Your task to perform on an android device: turn off location Image 0: 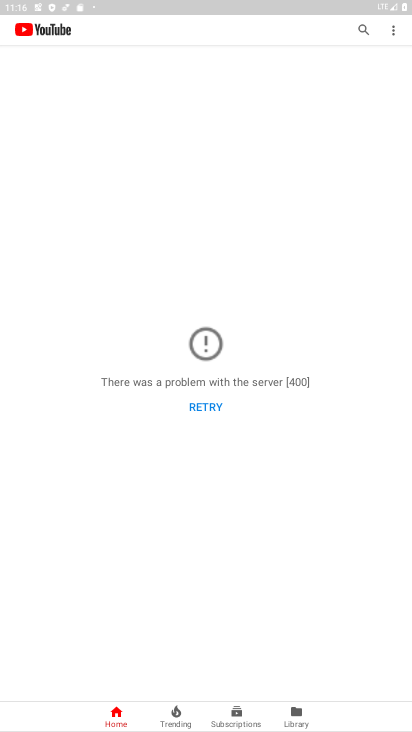
Step 0: press home button
Your task to perform on an android device: turn off location Image 1: 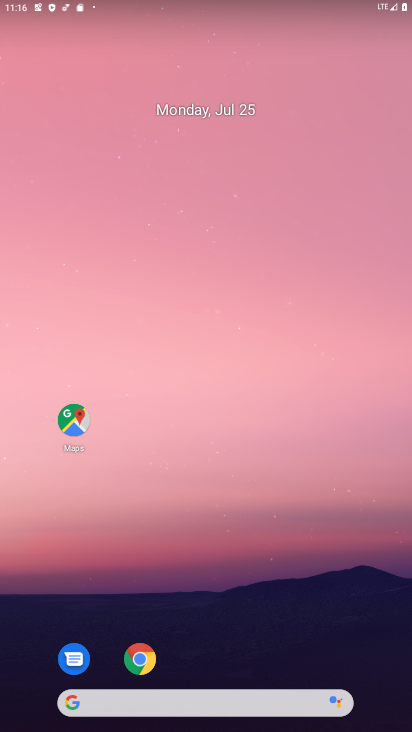
Step 1: drag from (301, 328) to (292, 226)
Your task to perform on an android device: turn off location Image 2: 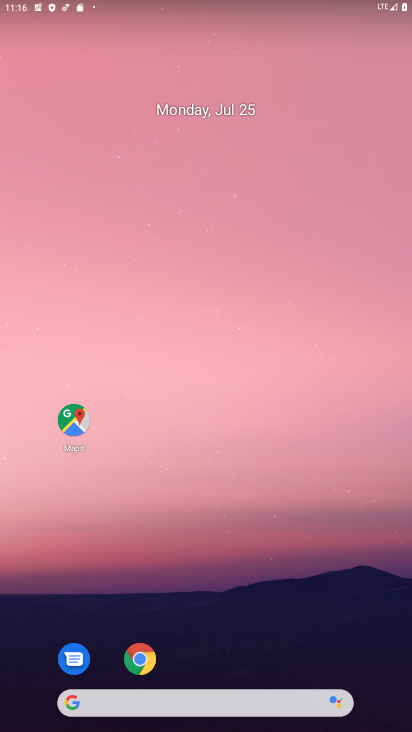
Step 2: drag from (257, 650) to (231, 117)
Your task to perform on an android device: turn off location Image 3: 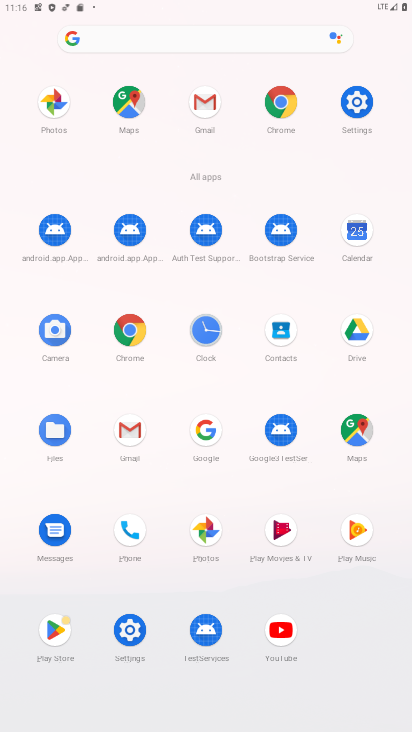
Step 3: click (356, 107)
Your task to perform on an android device: turn off location Image 4: 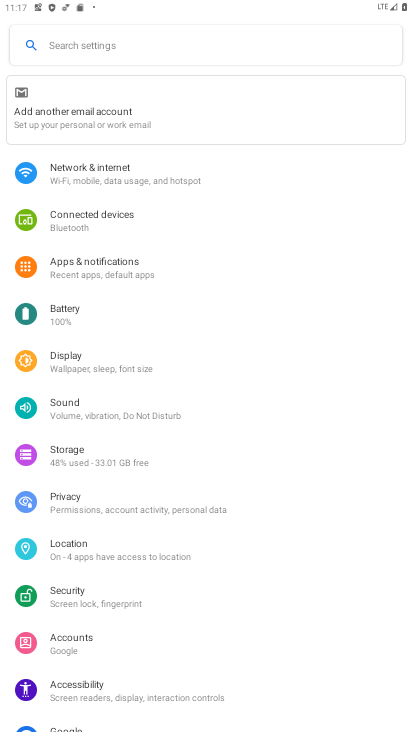
Step 4: click (190, 548)
Your task to perform on an android device: turn off location Image 5: 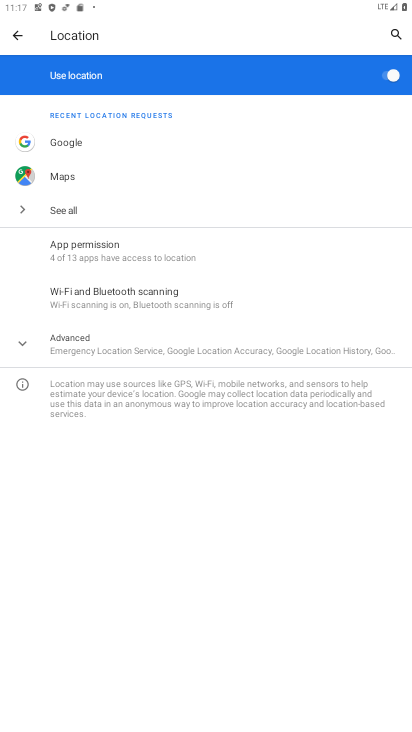
Step 5: click (389, 79)
Your task to perform on an android device: turn off location Image 6: 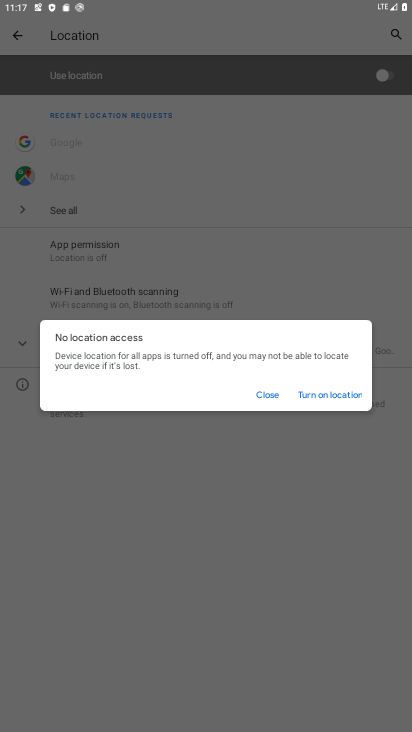
Step 6: task complete